Your task to perform on an android device: toggle priority inbox in the gmail app Image 0: 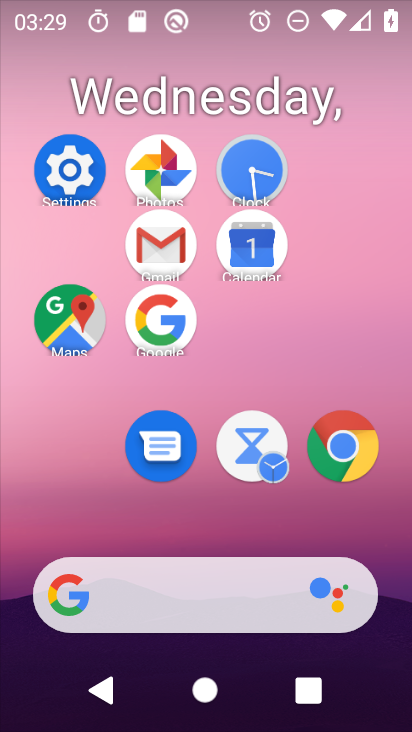
Step 0: click (157, 248)
Your task to perform on an android device: toggle priority inbox in the gmail app Image 1: 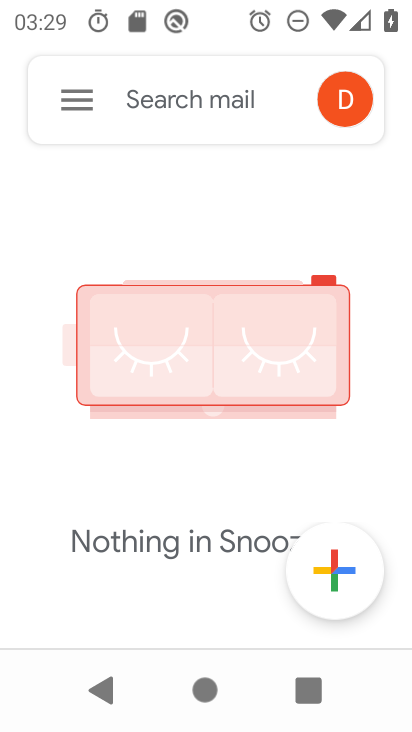
Step 1: click (98, 103)
Your task to perform on an android device: toggle priority inbox in the gmail app Image 2: 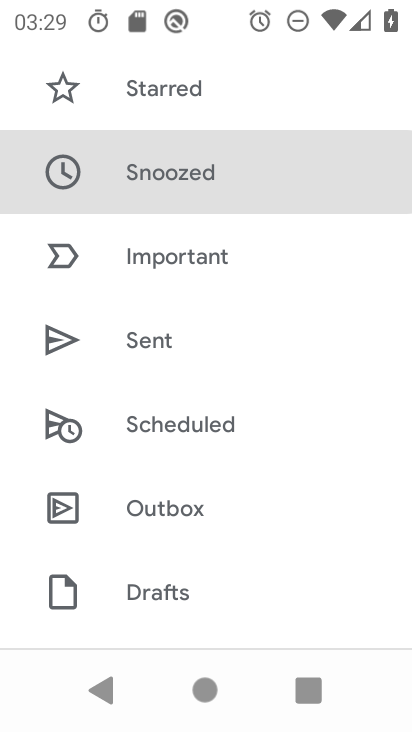
Step 2: drag from (194, 547) to (271, 198)
Your task to perform on an android device: toggle priority inbox in the gmail app Image 3: 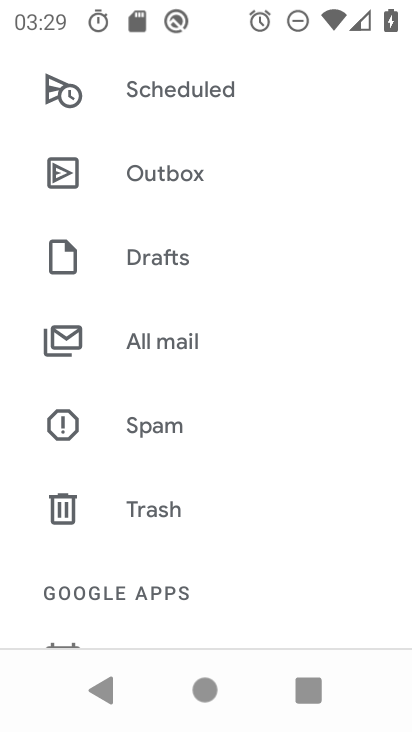
Step 3: drag from (246, 506) to (286, 152)
Your task to perform on an android device: toggle priority inbox in the gmail app Image 4: 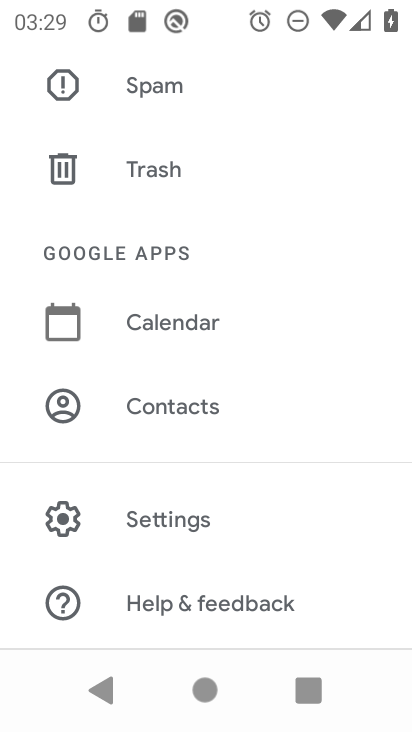
Step 4: click (192, 534)
Your task to perform on an android device: toggle priority inbox in the gmail app Image 5: 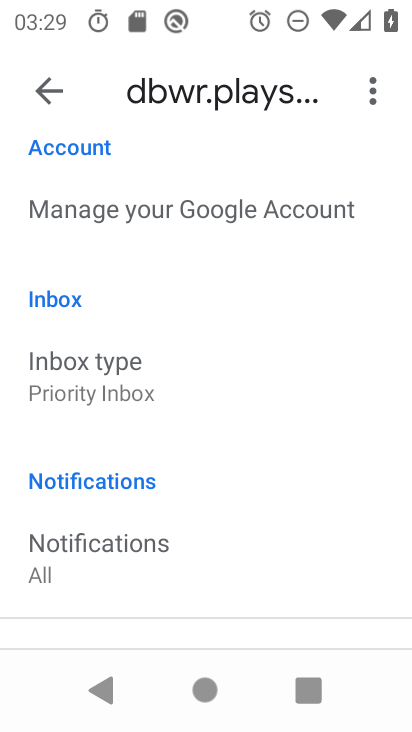
Step 5: drag from (182, 466) to (214, 148)
Your task to perform on an android device: toggle priority inbox in the gmail app Image 6: 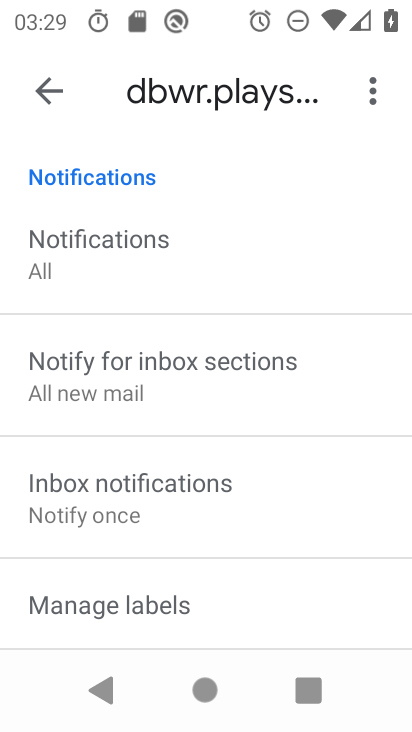
Step 6: drag from (198, 219) to (217, 515)
Your task to perform on an android device: toggle priority inbox in the gmail app Image 7: 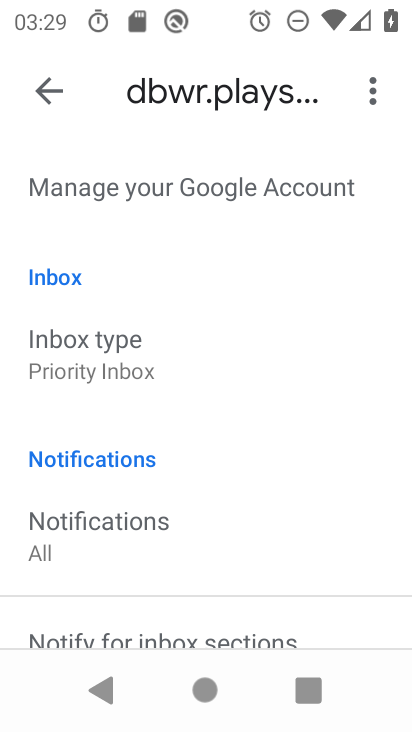
Step 7: click (153, 344)
Your task to perform on an android device: toggle priority inbox in the gmail app Image 8: 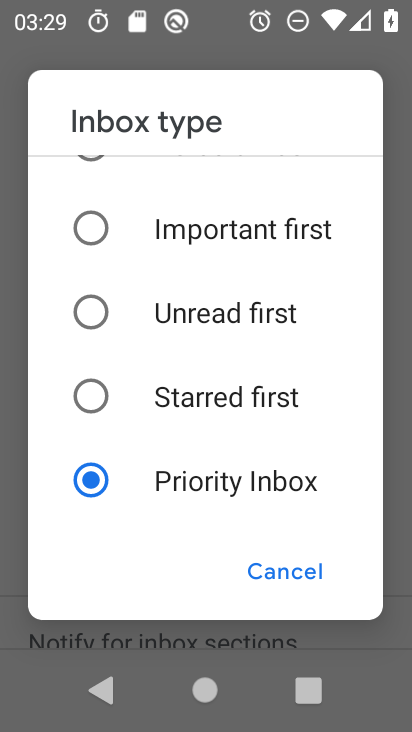
Step 8: drag from (166, 181) to (239, 618)
Your task to perform on an android device: toggle priority inbox in the gmail app Image 9: 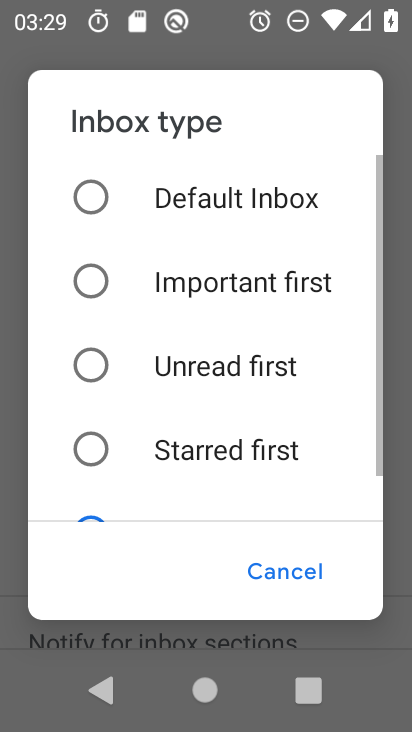
Step 9: click (176, 191)
Your task to perform on an android device: toggle priority inbox in the gmail app Image 10: 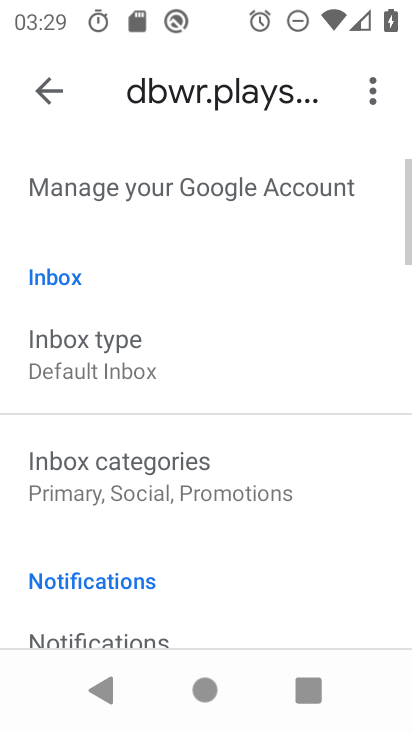
Step 10: task complete